Your task to perform on an android device: Open notification settings Image 0: 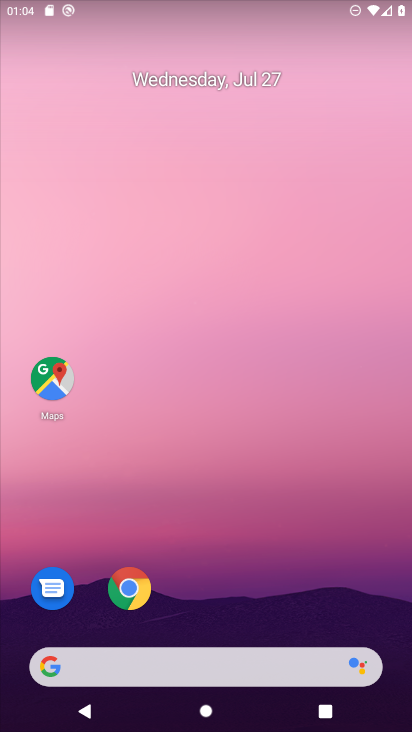
Step 0: click (31, 699)
Your task to perform on an android device: Open notification settings Image 1: 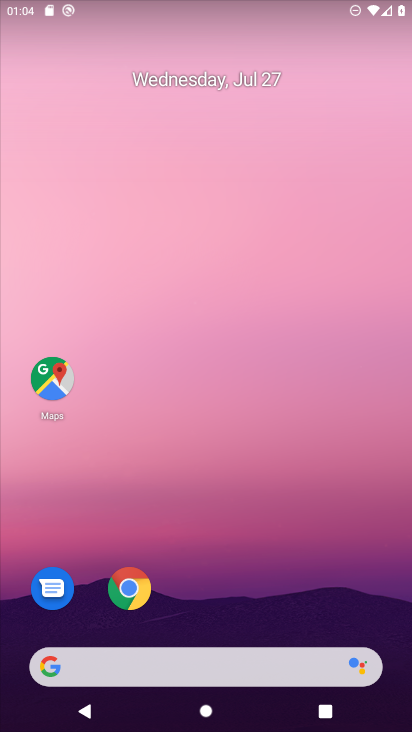
Step 1: drag from (43, 711) to (315, 48)
Your task to perform on an android device: Open notification settings Image 2: 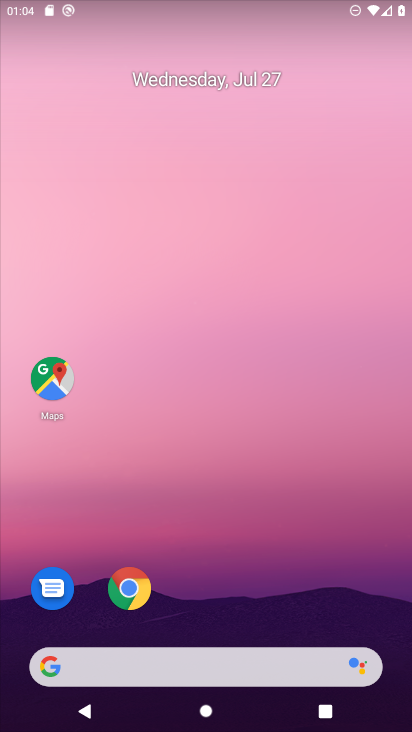
Step 2: drag from (29, 679) to (209, 164)
Your task to perform on an android device: Open notification settings Image 3: 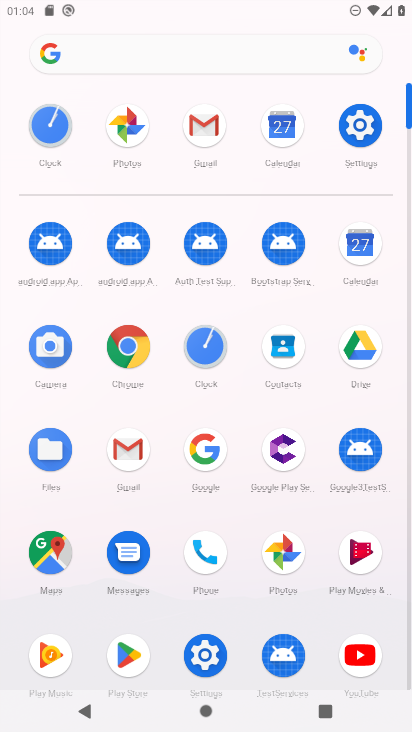
Step 3: click (194, 650)
Your task to perform on an android device: Open notification settings Image 4: 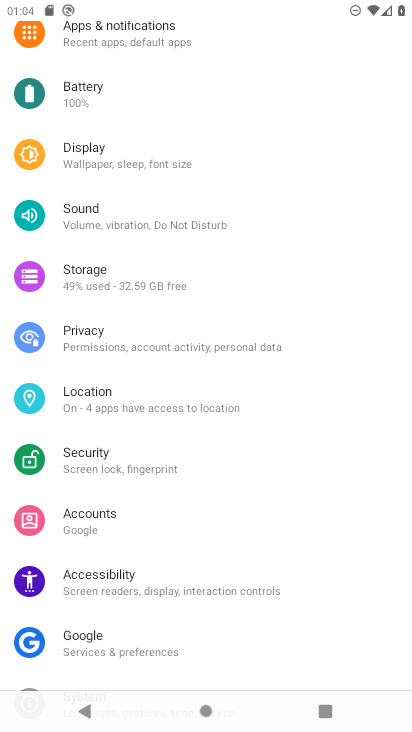
Step 4: drag from (227, 69) to (234, 549)
Your task to perform on an android device: Open notification settings Image 5: 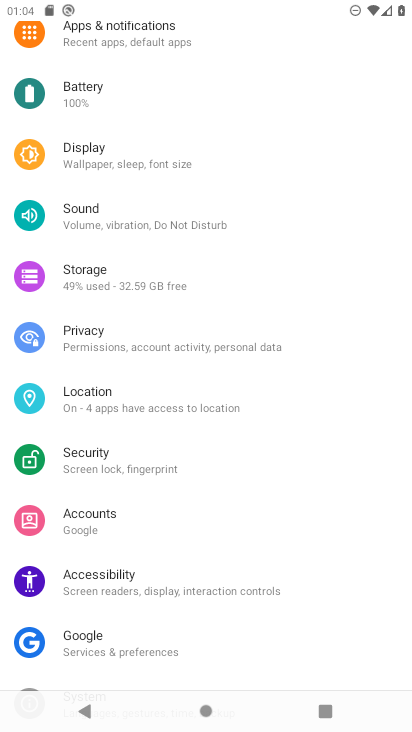
Step 5: click (140, 36)
Your task to perform on an android device: Open notification settings Image 6: 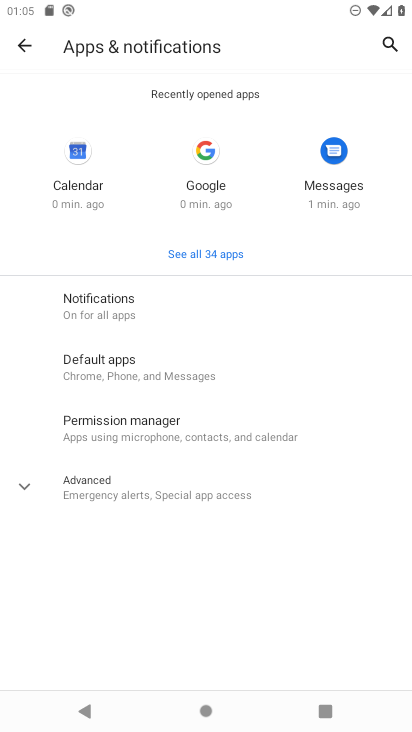
Step 6: task complete